Your task to perform on an android device: Is it going to rain tomorrow? Image 0: 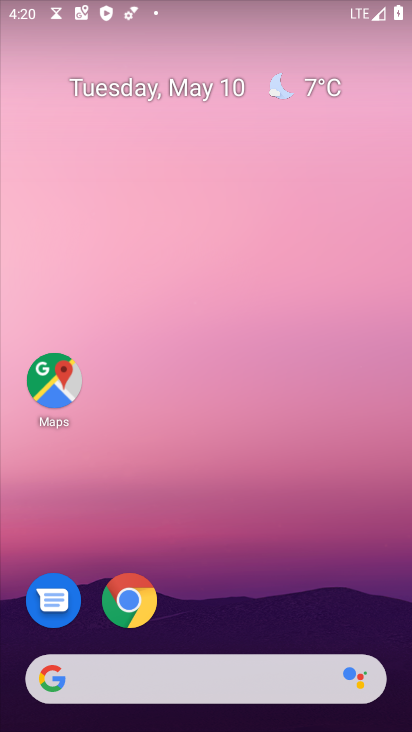
Step 0: click (280, 82)
Your task to perform on an android device: Is it going to rain tomorrow? Image 1: 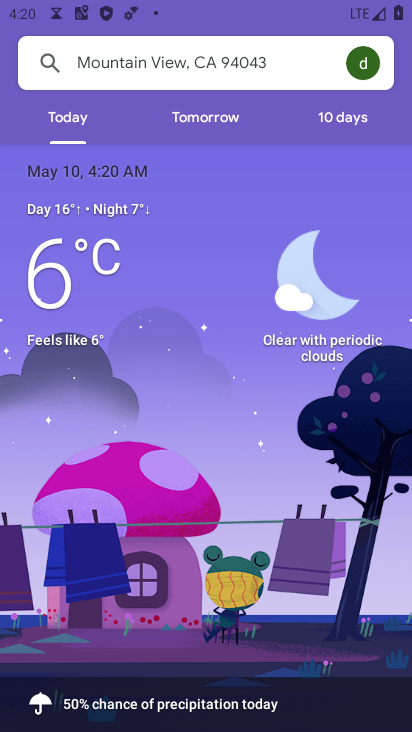
Step 1: click (186, 116)
Your task to perform on an android device: Is it going to rain tomorrow? Image 2: 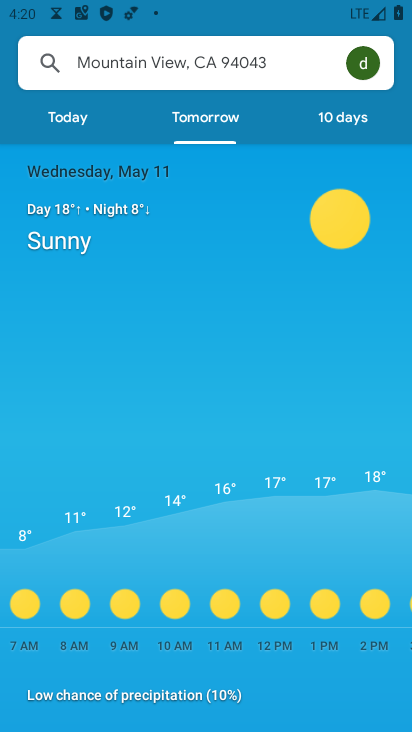
Step 2: task complete